Your task to perform on an android device: Open ESPN.com Image 0: 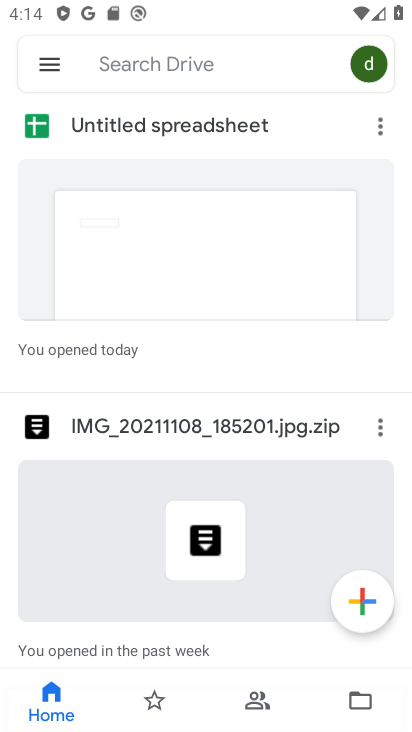
Step 0: press home button
Your task to perform on an android device: Open ESPN.com Image 1: 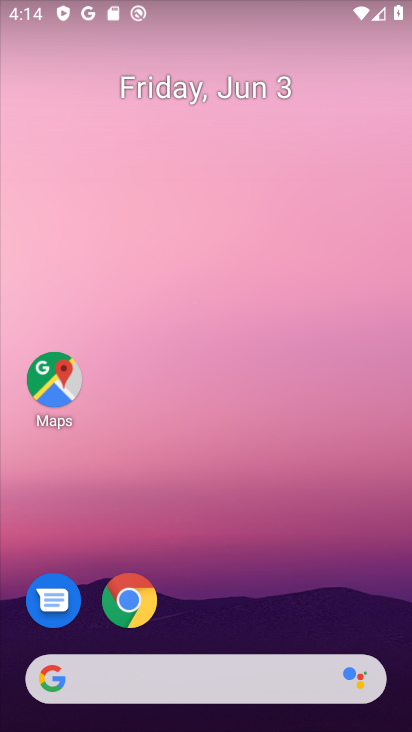
Step 1: click (128, 611)
Your task to perform on an android device: Open ESPN.com Image 2: 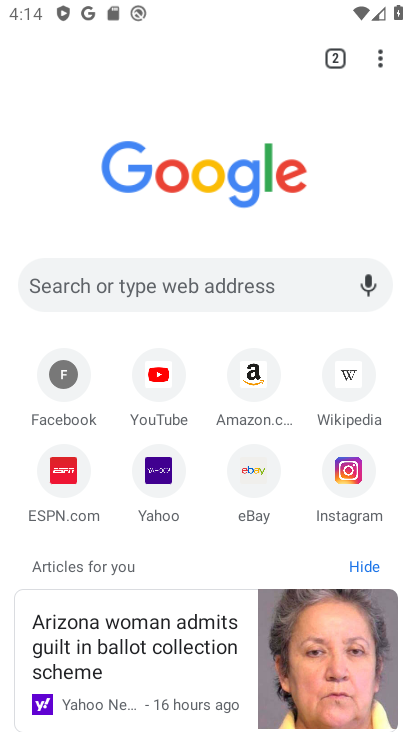
Step 2: click (204, 295)
Your task to perform on an android device: Open ESPN.com Image 3: 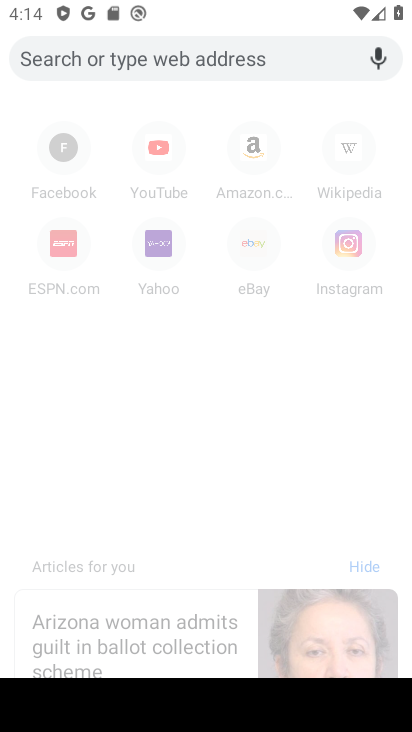
Step 3: type "ESPN.com"
Your task to perform on an android device: Open ESPN.com Image 4: 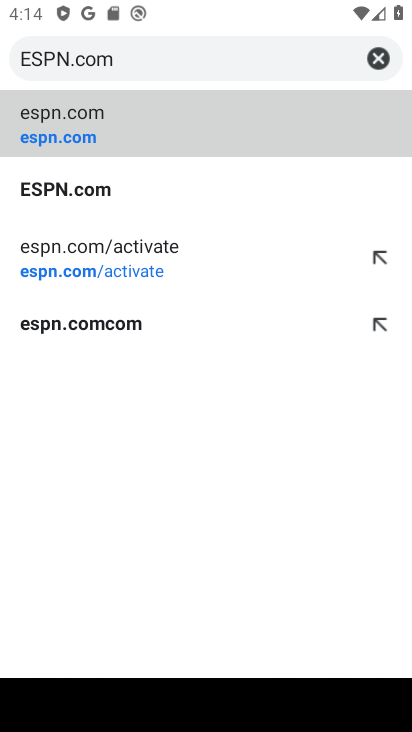
Step 4: click (64, 187)
Your task to perform on an android device: Open ESPN.com Image 5: 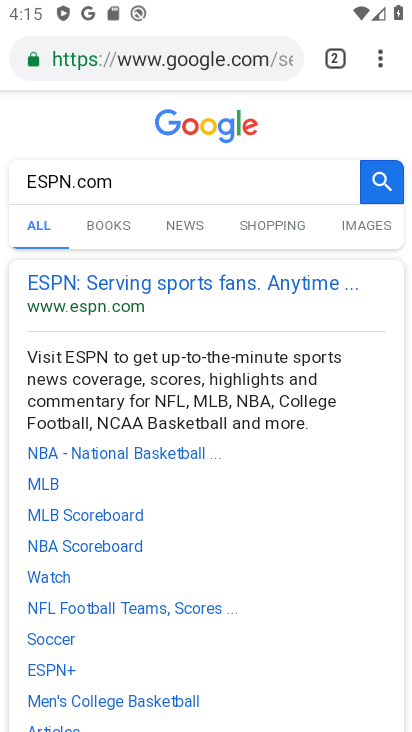
Step 5: task complete